Your task to perform on an android device: Open CNN.com Image 0: 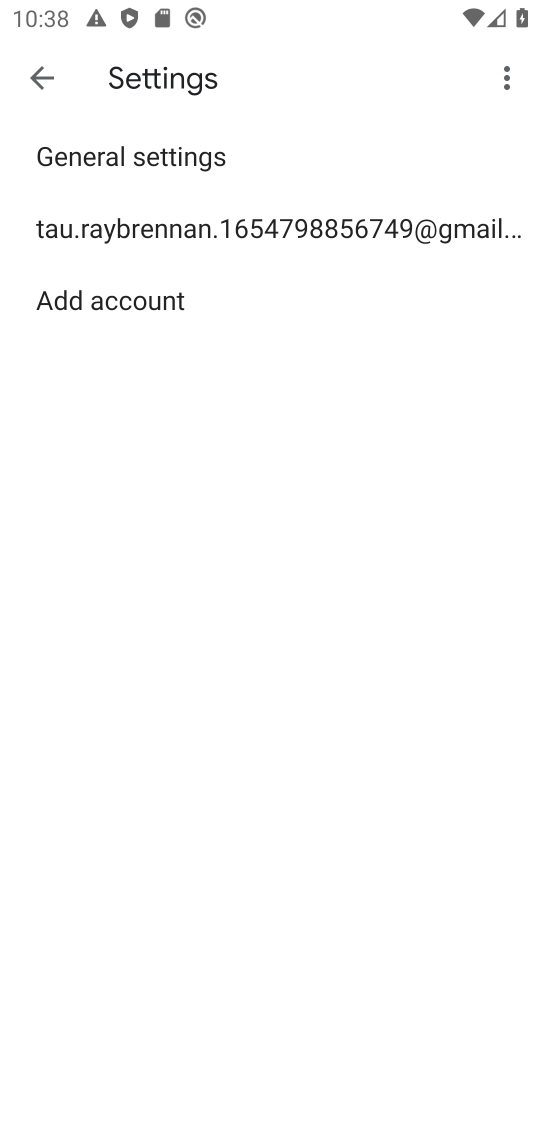
Step 0: press back button
Your task to perform on an android device: Open CNN.com Image 1: 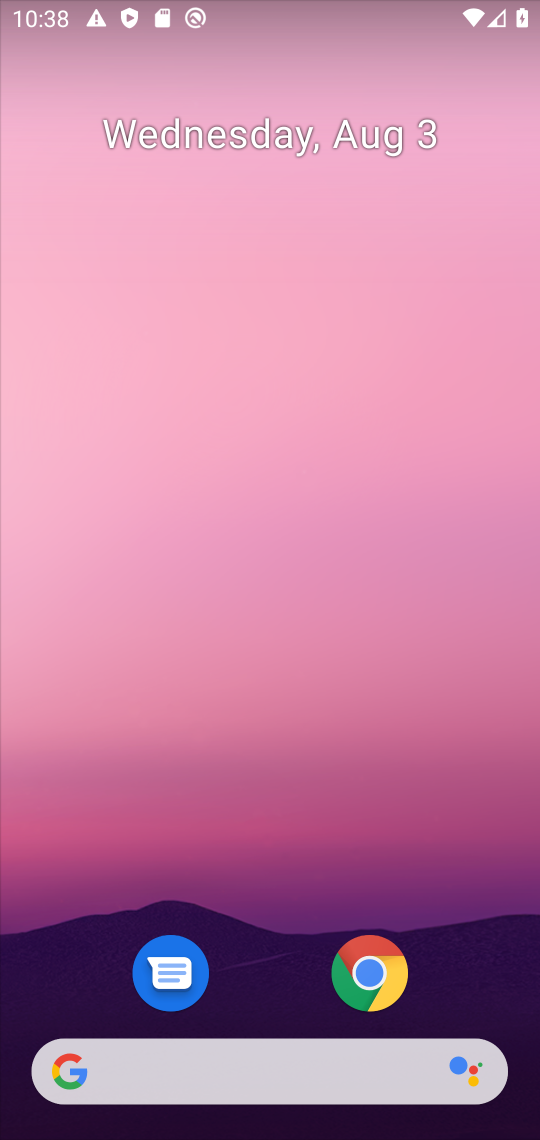
Step 1: click (364, 956)
Your task to perform on an android device: Open CNN.com Image 2: 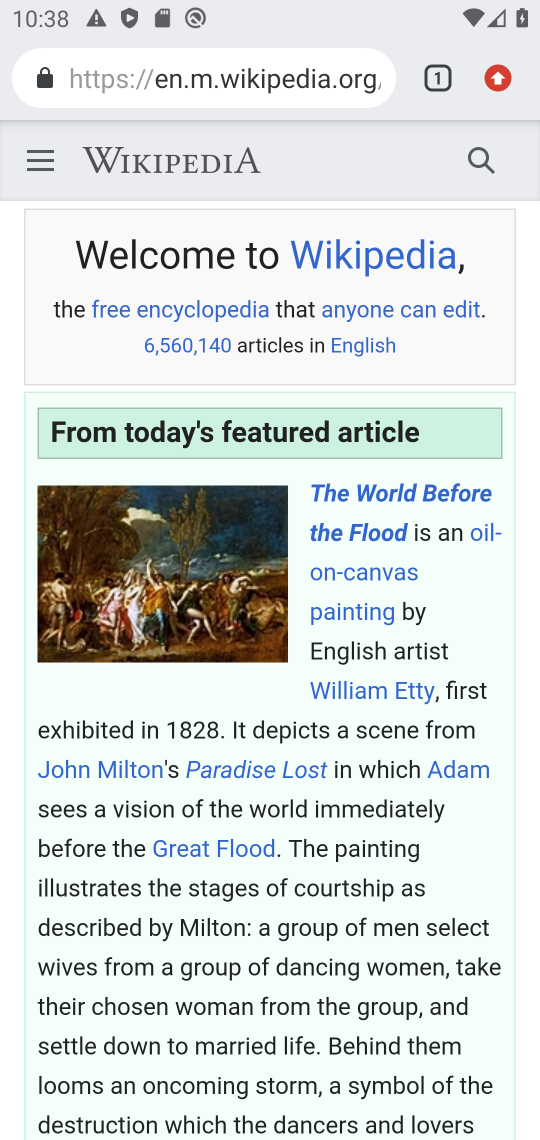
Step 2: click (443, 74)
Your task to perform on an android device: Open CNN.com Image 3: 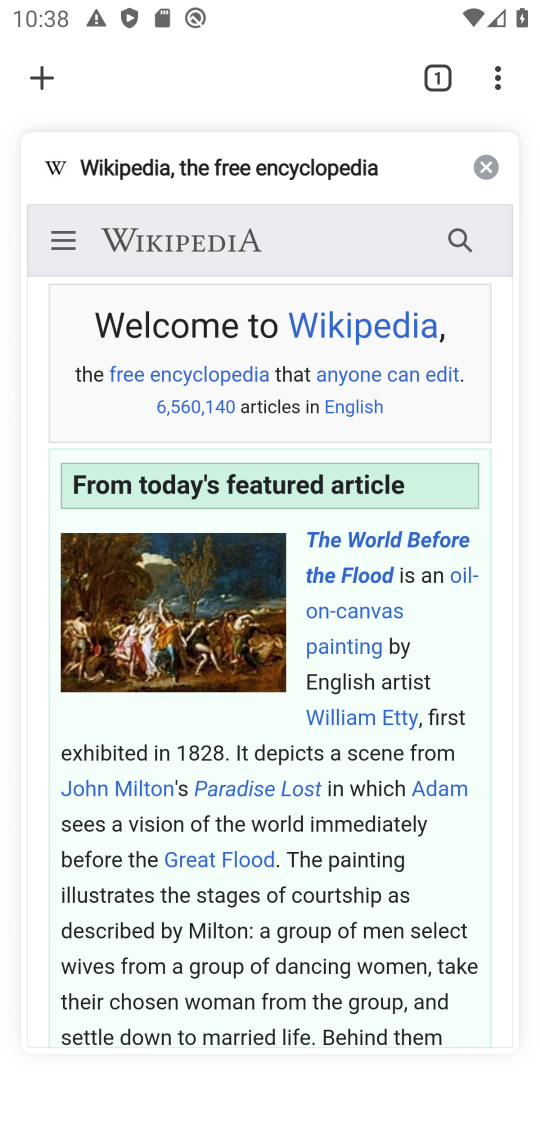
Step 3: click (28, 71)
Your task to perform on an android device: Open CNN.com Image 4: 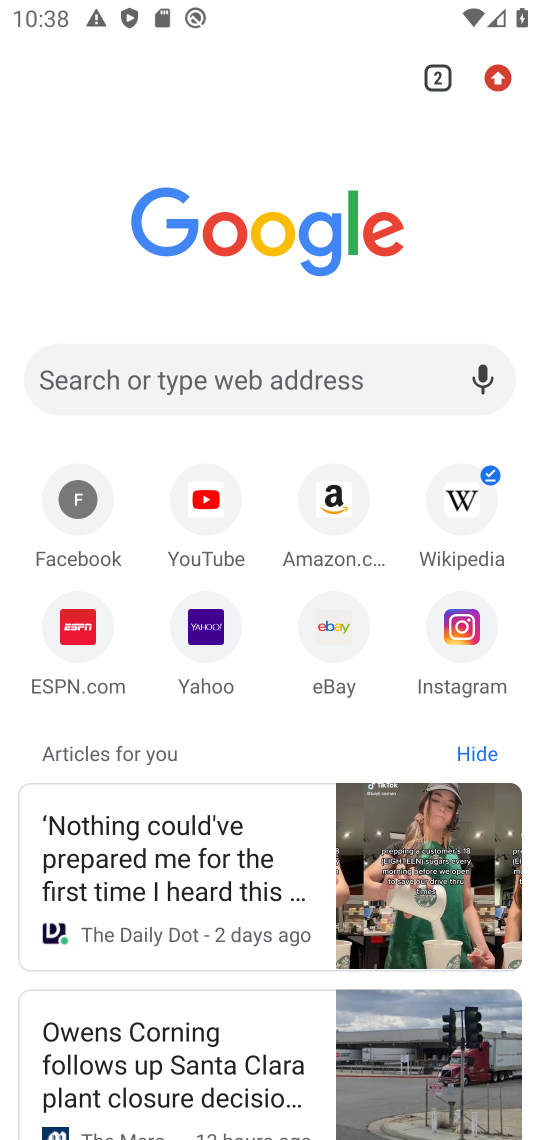
Step 4: click (156, 371)
Your task to perform on an android device: Open CNN.com Image 5: 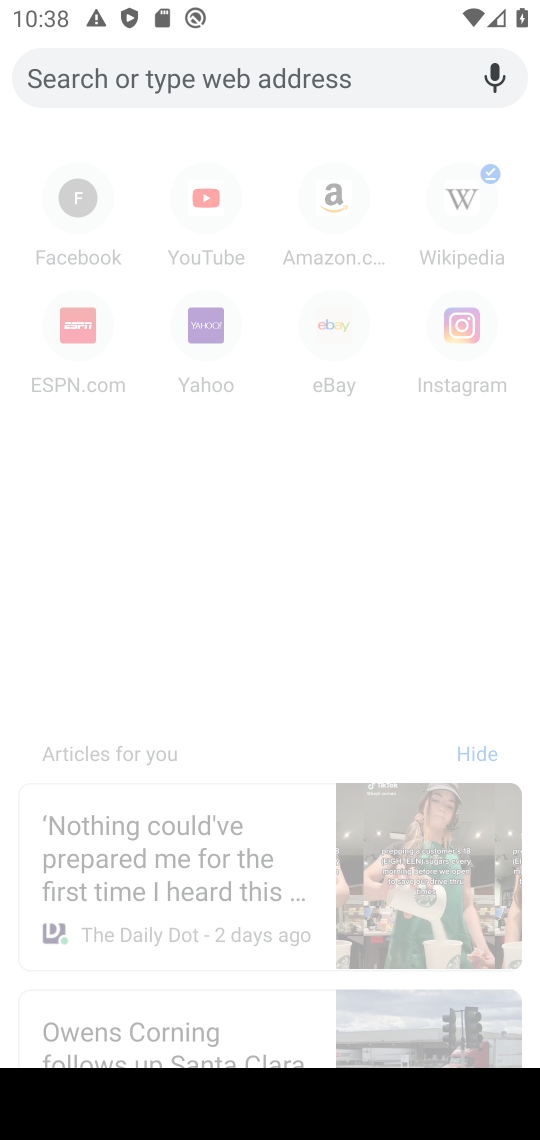
Step 5: type "cnn.com"
Your task to perform on an android device: Open CNN.com Image 6: 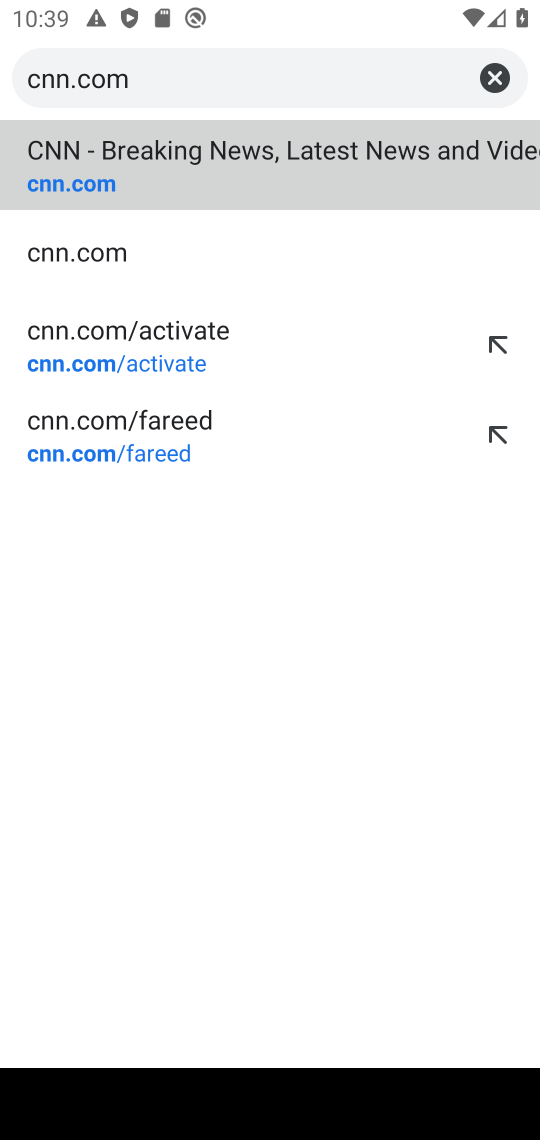
Step 6: click (295, 157)
Your task to perform on an android device: Open CNN.com Image 7: 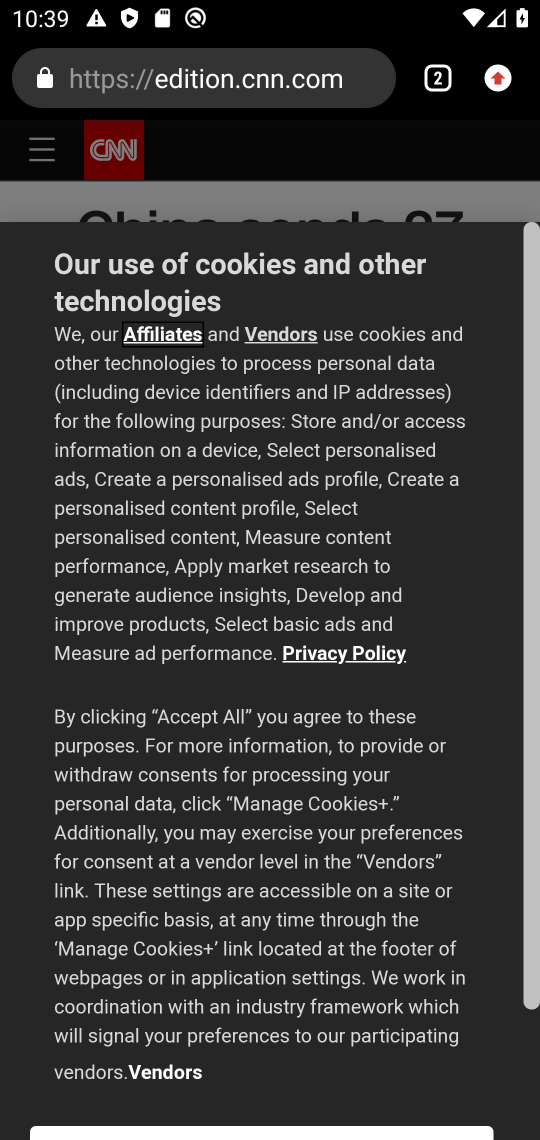
Step 7: task complete